Your task to perform on an android device: Open Android settings Image 0: 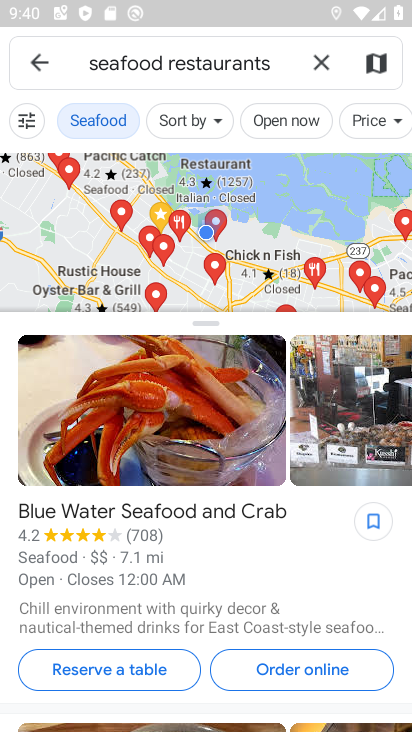
Step 0: press home button
Your task to perform on an android device: Open Android settings Image 1: 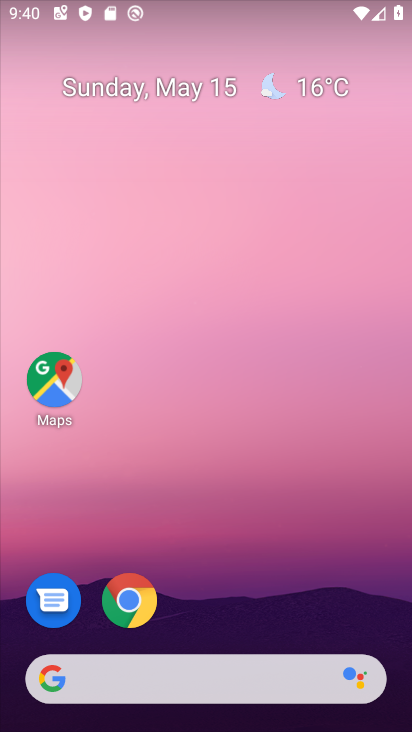
Step 1: drag from (199, 638) to (217, 17)
Your task to perform on an android device: Open Android settings Image 2: 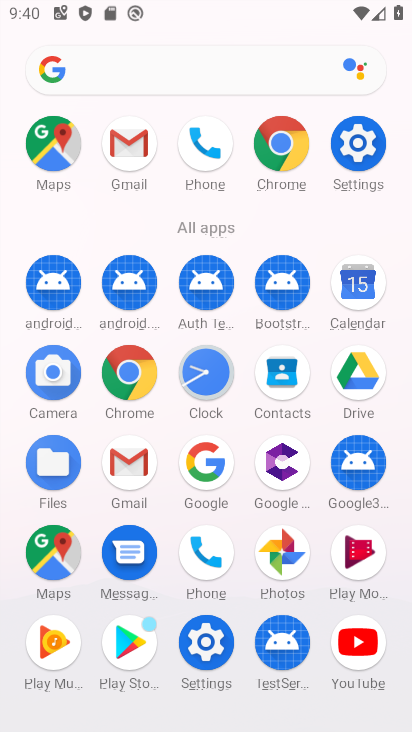
Step 2: click (200, 624)
Your task to perform on an android device: Open Android settings Image 3: 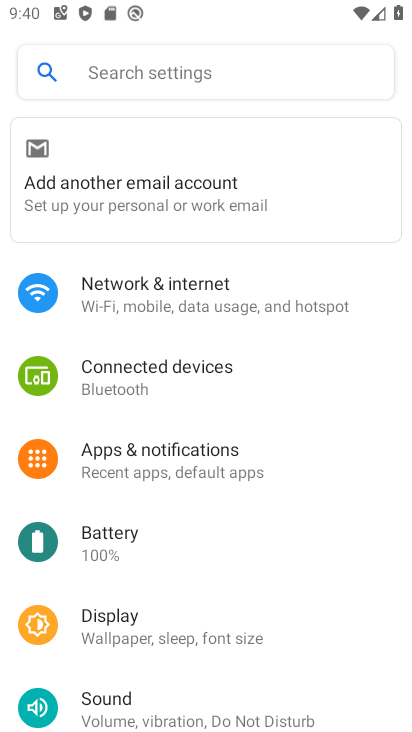
Step 3: task complete